Your task to perform on an android device: all mails in gmail Image 0: 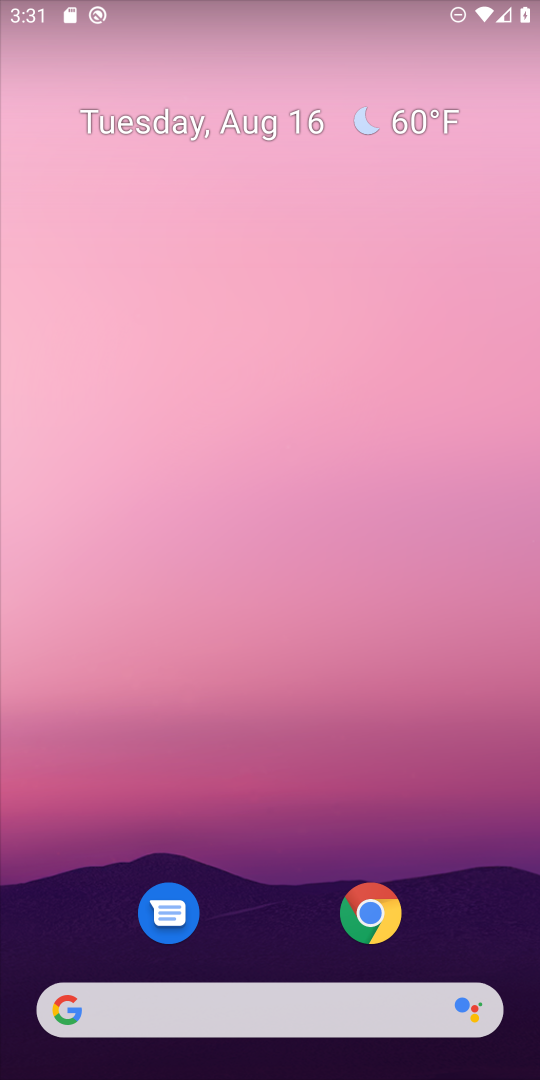
Step 0: drag from (500, 944) to (462, 150)
Your task to perform on an android device: all mails in gmail Image 1: 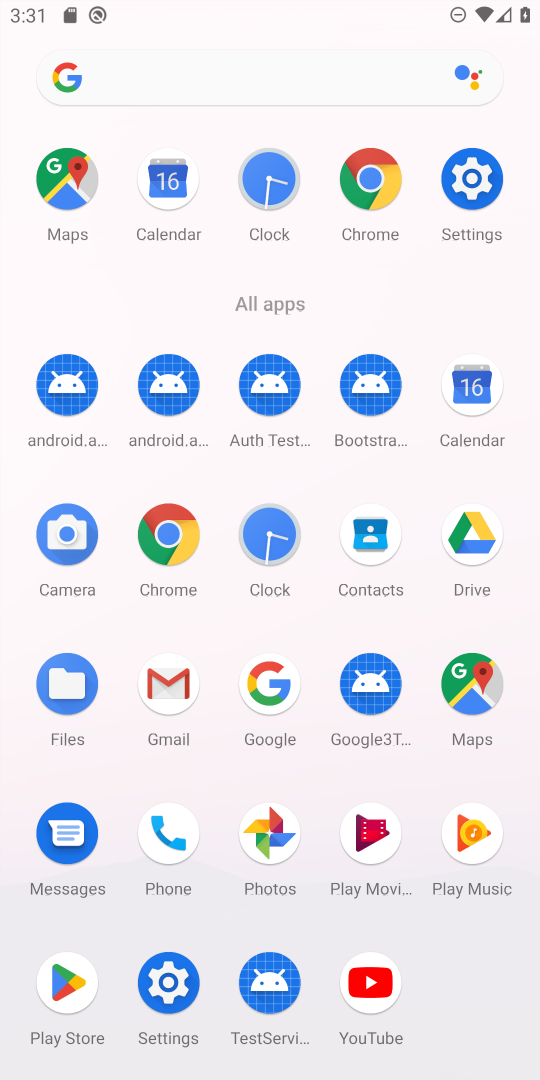
Step 1: click (166, 681)
Your task to perform on an android device: all mails in gmail Image 2: 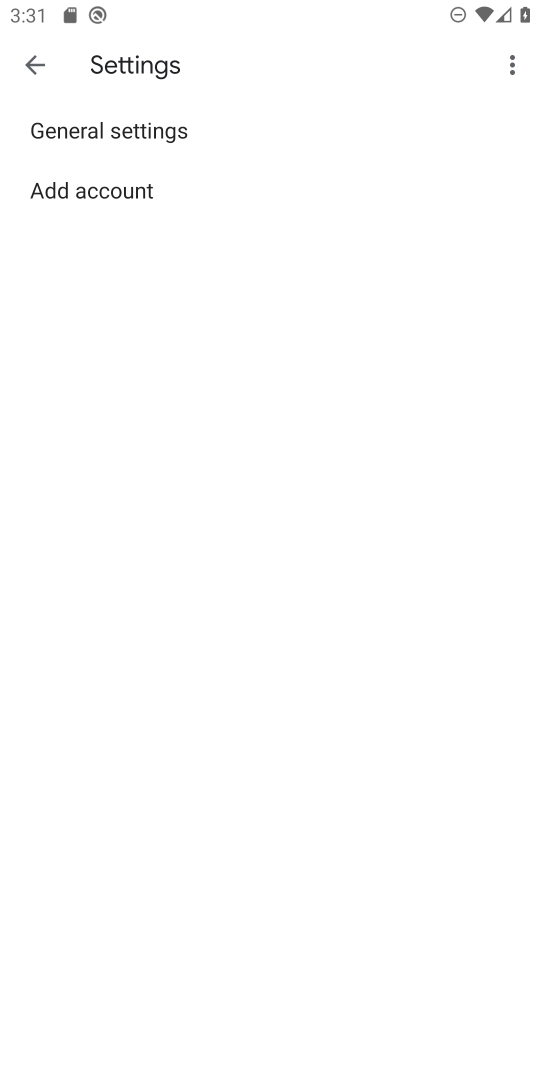
Step 2: press back button
Your task to perform on an android device: all mails in gmail Image 3: 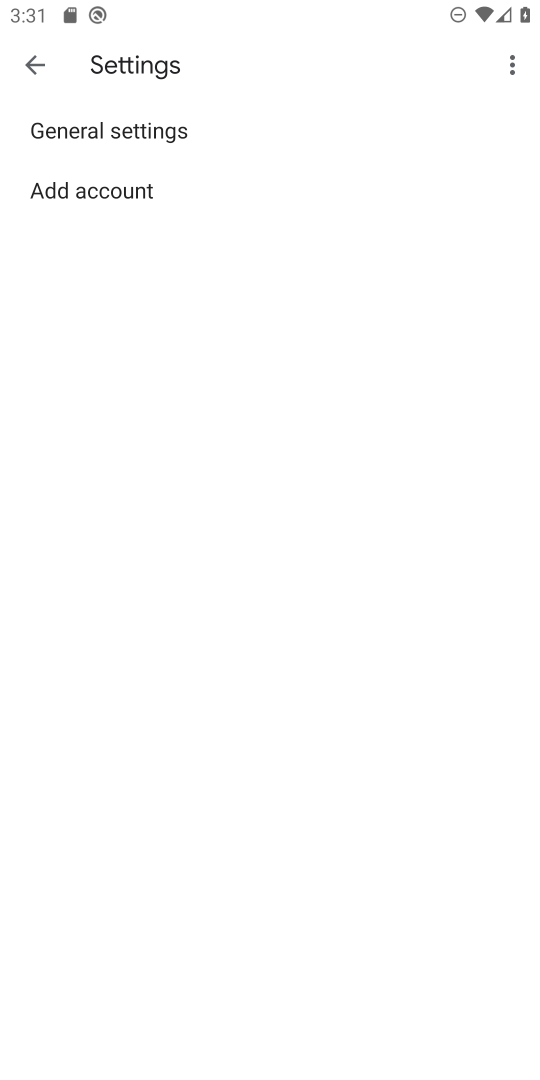
Step 3: press back button
Your task to perform on an android device: all mails in gmail Image 4: 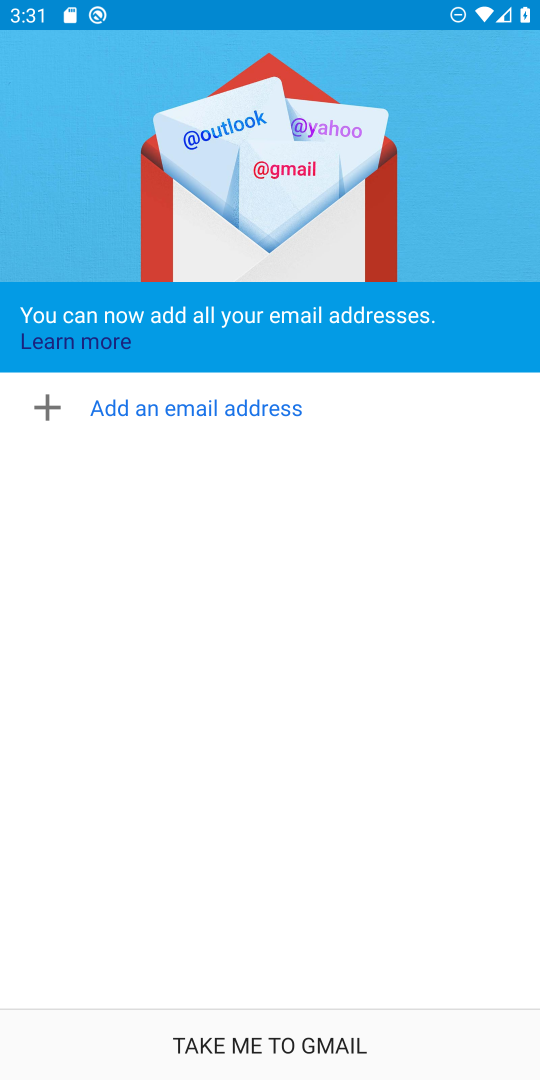
Step 4: click (280, 1041)
Your task to perform on an android device: all mails in gmail Image 5: 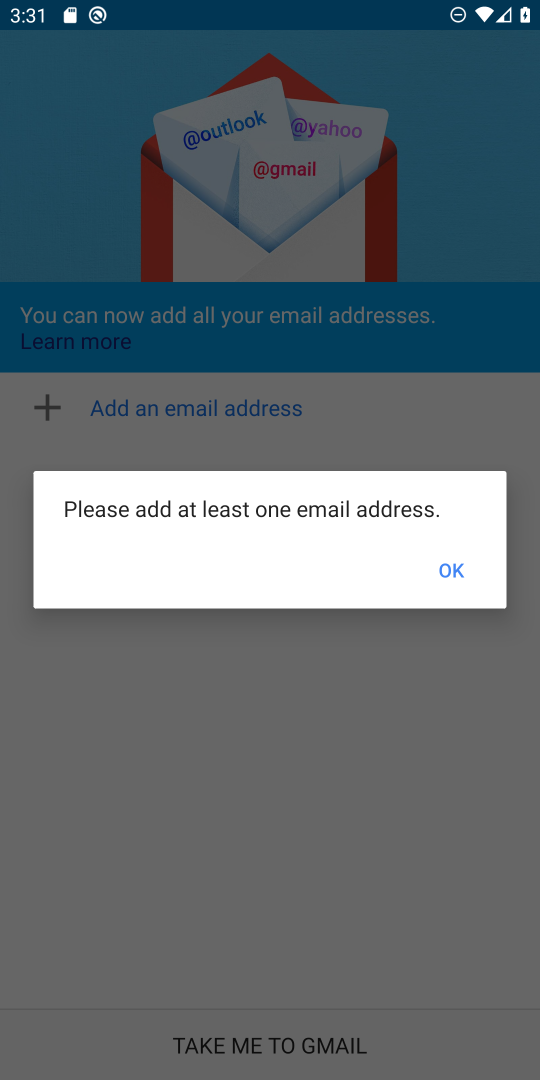
Step 5: task complete